Your task to perform on an android device: Open Maps and search for coffee Image 0: 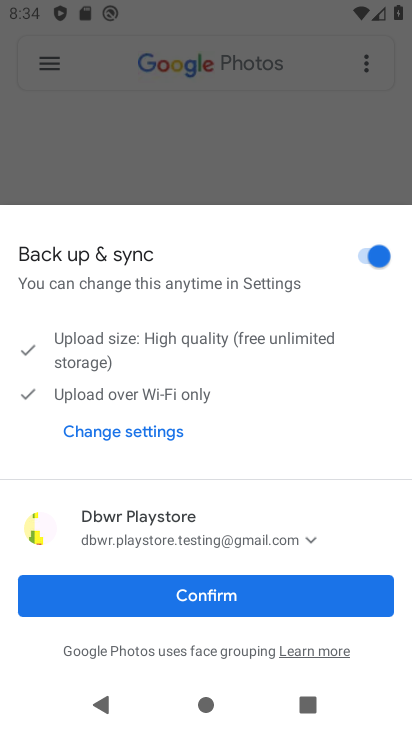
Step 0: press home button
Your task to perform on an android device: Open Maps and search for coffee Image 1: 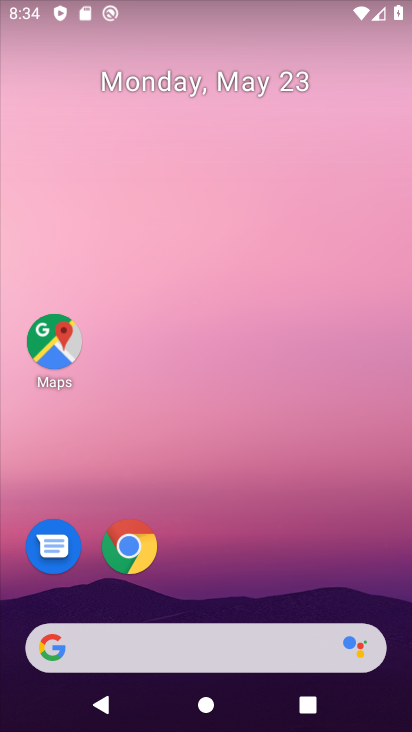
Step 1: click (51, 345)
Your task to perform on an android device: Open Maps and search for coffee Image 2: 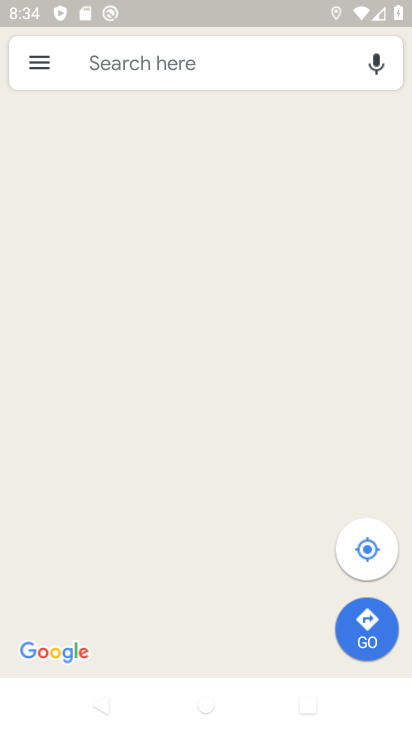
Step 2: click (140, 56)
Your task to perform on an android device: Open Maps and search for coffee Image 3: 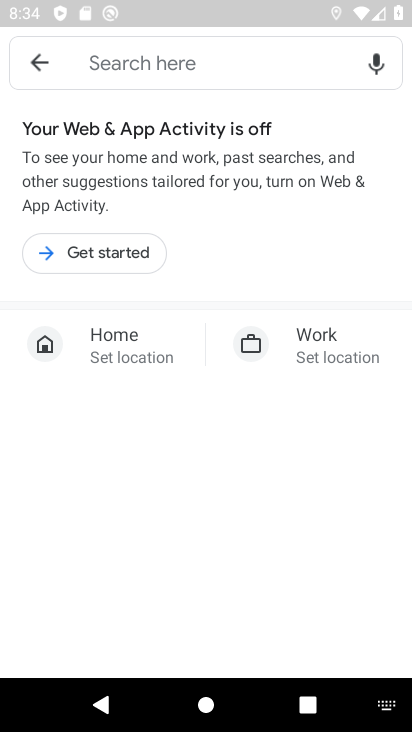
Step 3: type "coffee"
Your task to perform on an android device: Open Maps and search for coffee Image 4: 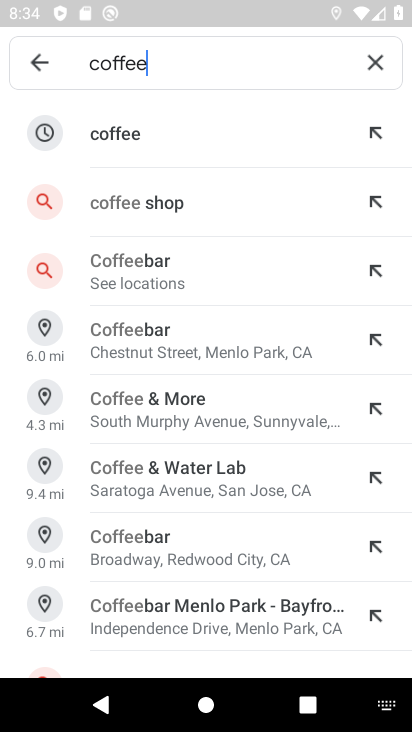
Step 4: click (147, 202)
Your task to perform on an android device: Open Maps and search for coffee Image 5: 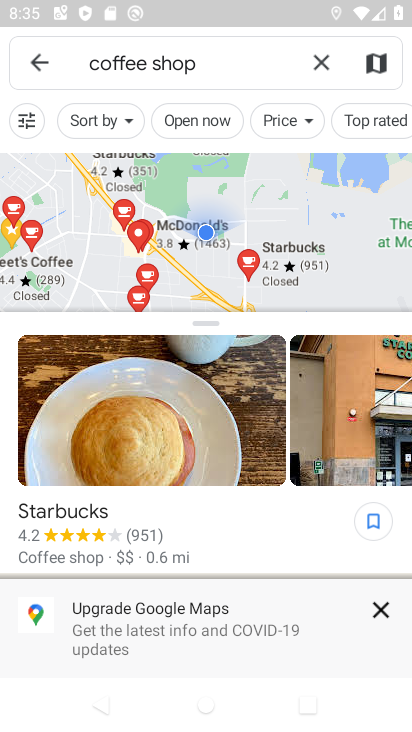
Step 5: task complete